Your task to perform on an android device: turn on location history Image 0: 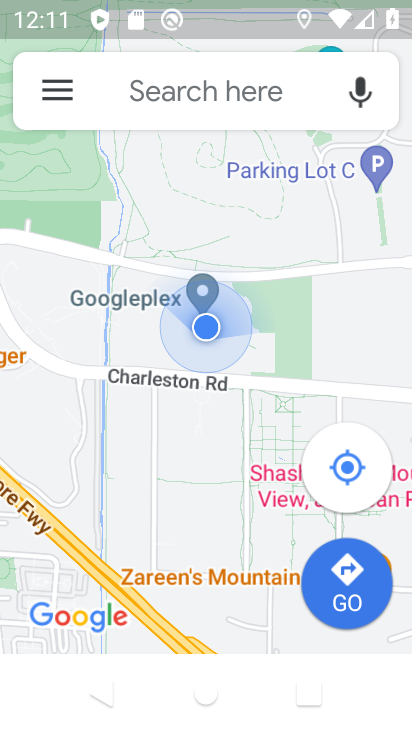
Step 0: press back button
Your task to perform on an android device: turn on location history Image 1: 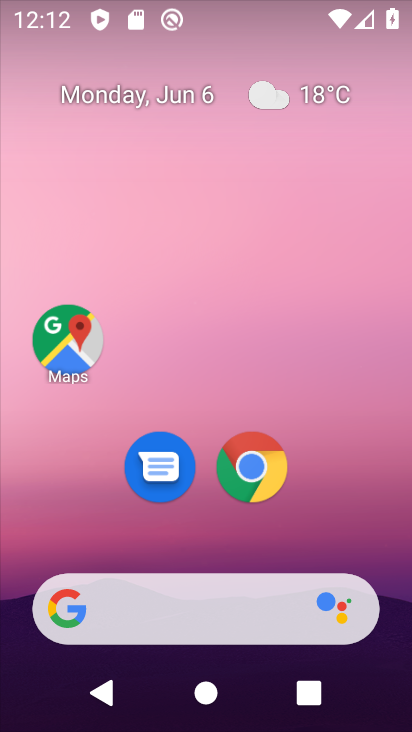
Step 1: drag from (343, 497) to (210, 95)
Your task to perform on an android device: turn on location history Image 2: 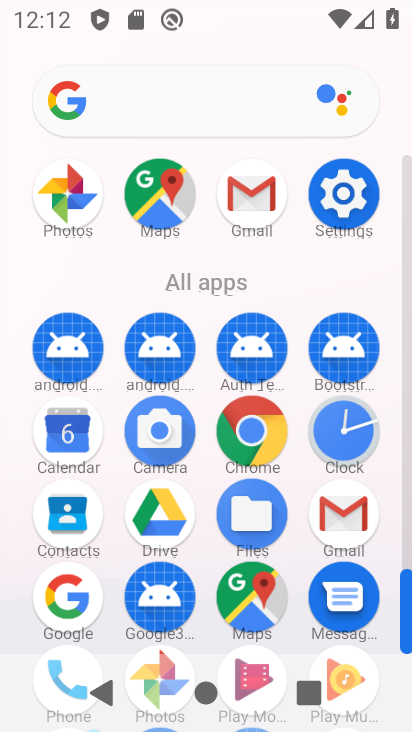
Step 2: click (340, 194)
Your task to perform on an android device: turn on location history Image 3: 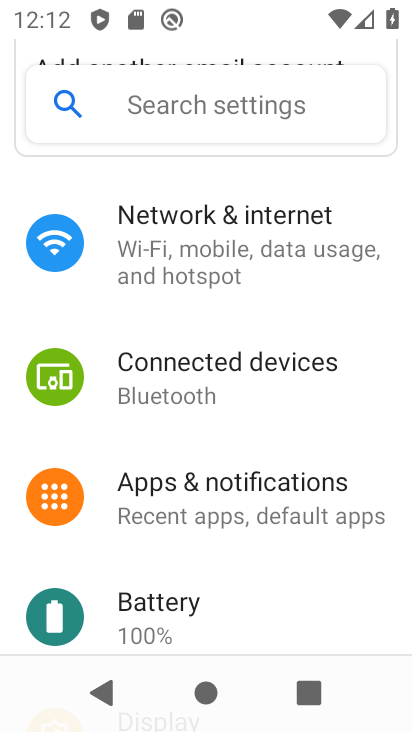
Step 3: drag from (203, 440) to (224, 324)
Your task to perform on an android device: turn on location history Image 4: 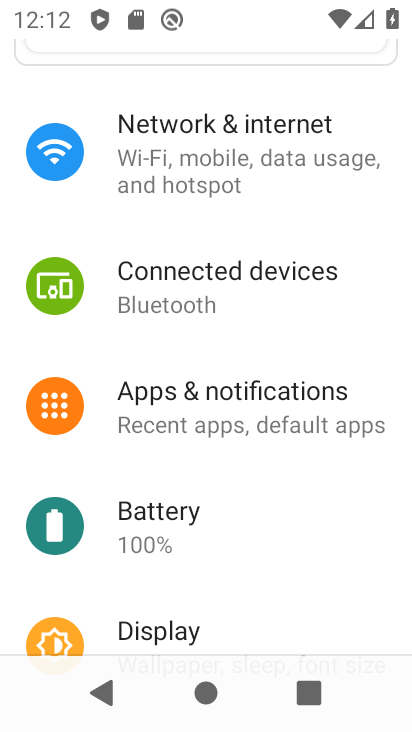
Step 4: drag from (156, 472) to (234, 328)
Your task to perform on an android device: turn on location history Image 5: 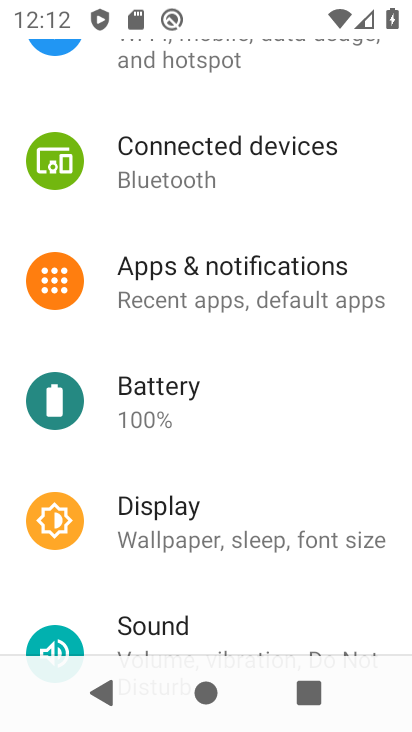
Step 5: drag from (139, 462) to (219, 342)
Your task to perform on an android device: turn on location history Image 6: 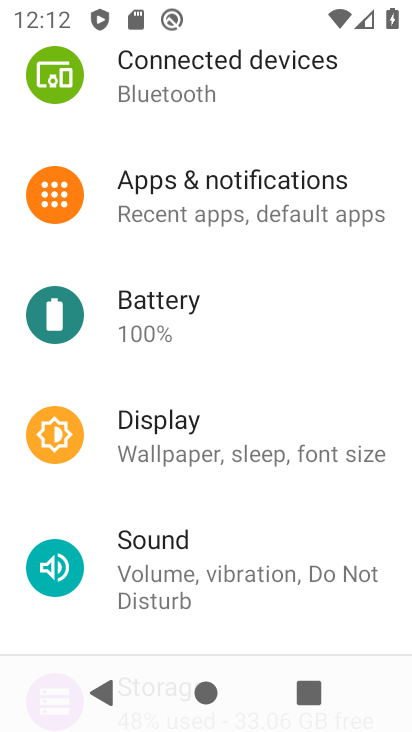
Step 6: drag from (150, 506) to (195, 361)
Your task to perform on an android device: turn on location history Image 7: 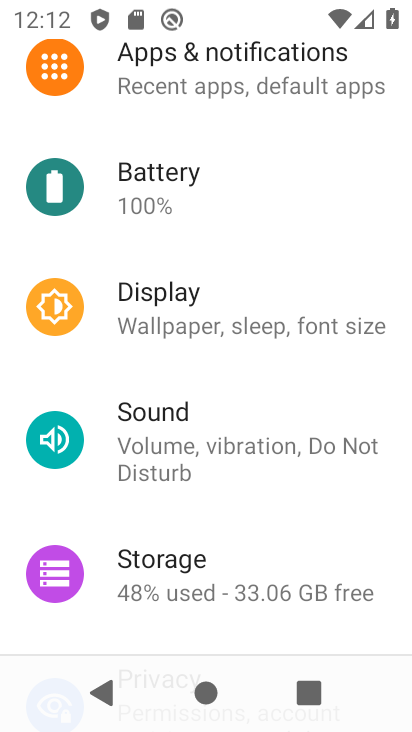
Step 7: drag from (144, 514) to (169, 381)
Your task to perform on an android device: turn on location history Image 8: 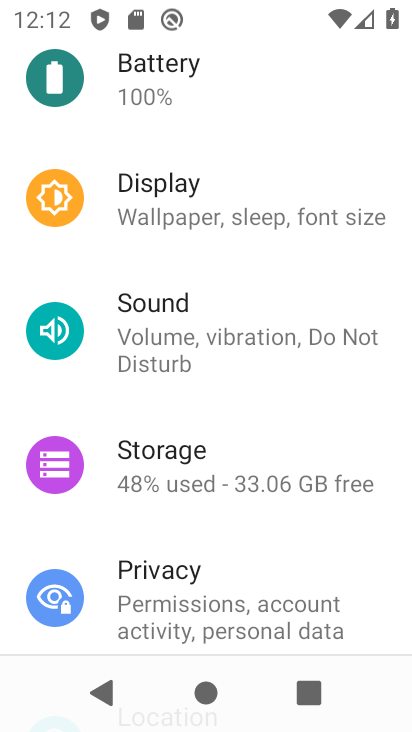
Step 8: drag from (147, 551) to (197, 423)
Your task to perform on an android device: turn on location history Image 9: 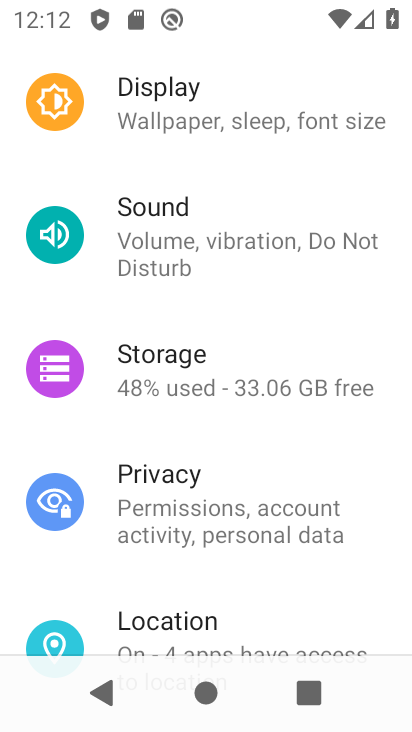
Step 9: drag from (156, 571) to (244, 451)
Your task to perform on an android device: turn on location history Image 10: 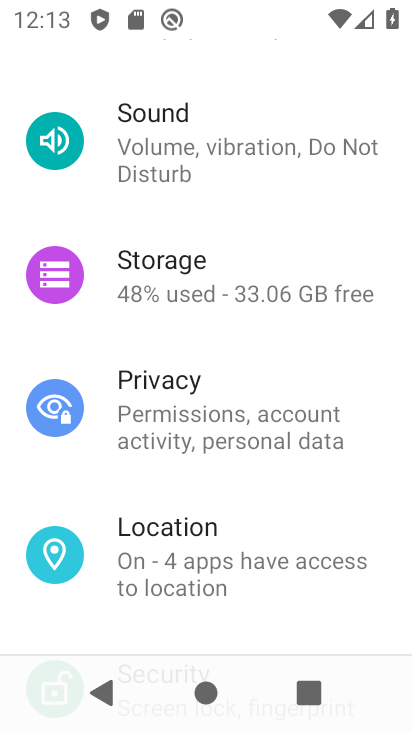
Step 10: click (166, 539)
Your task to perform on an android device: turn on location history Image 11: 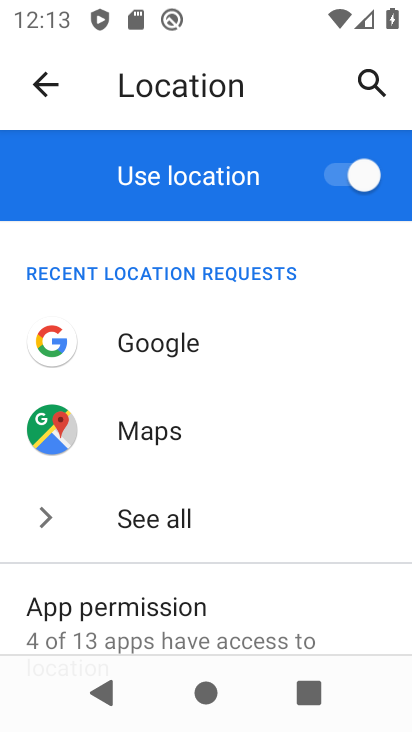
Step 11: drag from (221, 540) to (286, 413)
Your task to perform on an android device: turn on location history Image 12: 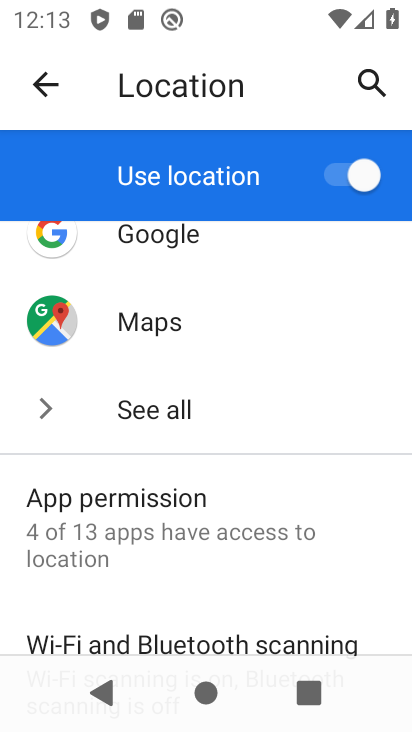
Step 12: drag from (204, 599) to (248, 442)
Your task to perform on an android device: turn on location history Image 13: 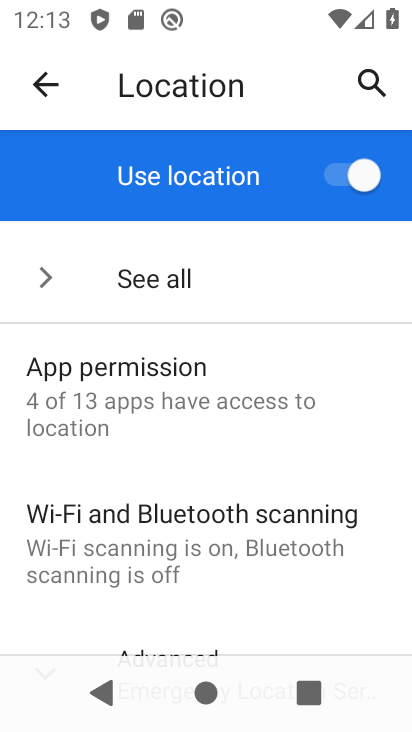
Step 13: drag from (222, 601) to (299, 468)
Your task to perform on an android device: turn on location history Image 14: 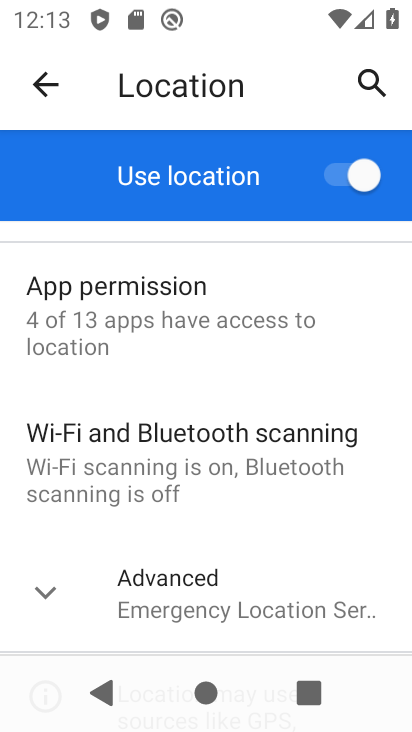
Step 14: click (246, 596)
Your task to perform on an android device: turn on location history Image 15: 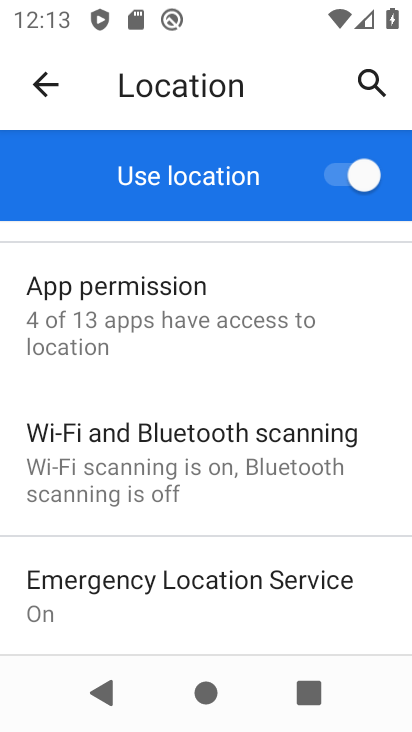
Step 15: drag from (152, 620) to (206, 504)
Your task to perform on an android device: turn on location history Image 16: 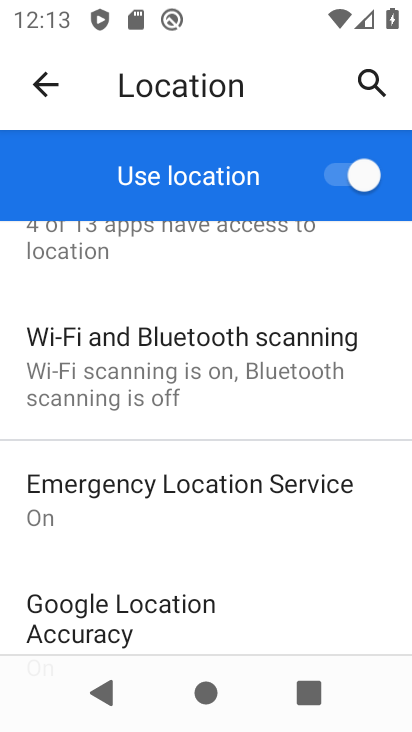
Step 16: drag from (247, 613) to (304, 480)
Your task to perform on an android device: turn on location history Image 17: 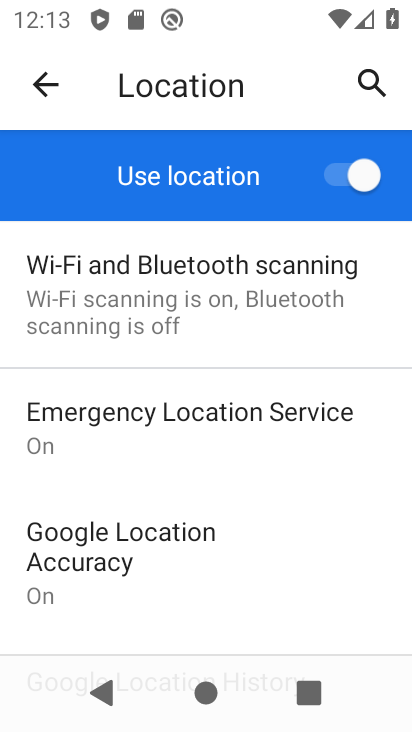
Step 17: drag from (240, 582) to (304, 484)
Your task to perform on an android device: turn on location history Image 18: 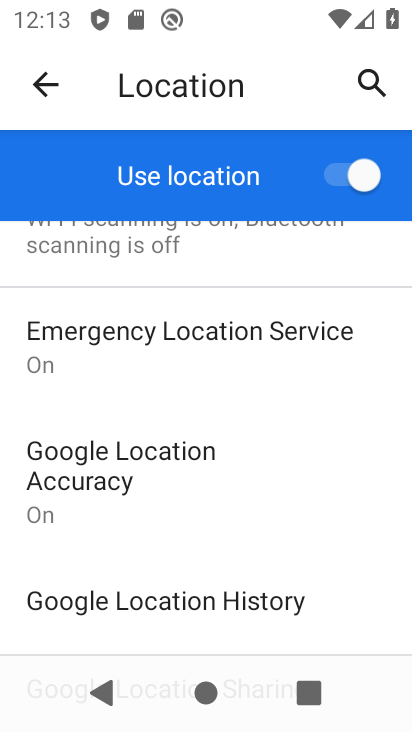
Step 18: drag from (252, 537) to (332, 441)
Your task to perform on an android device: turn on location history Image 19: 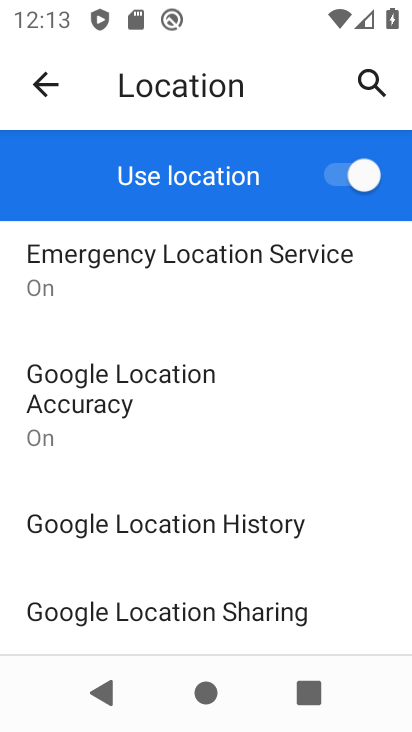
Step 19: click (305, 523)
Your task to perform on an android device: turn on location history Image 20: 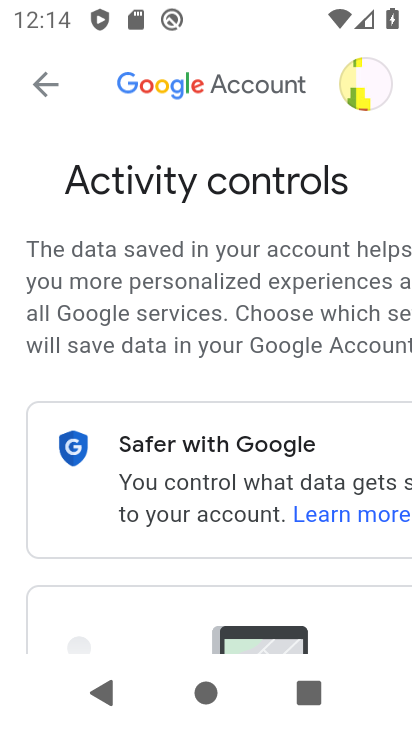
Step 20: task complete